Your task to perform on an android device: Set an alarm for 9am Image 0: 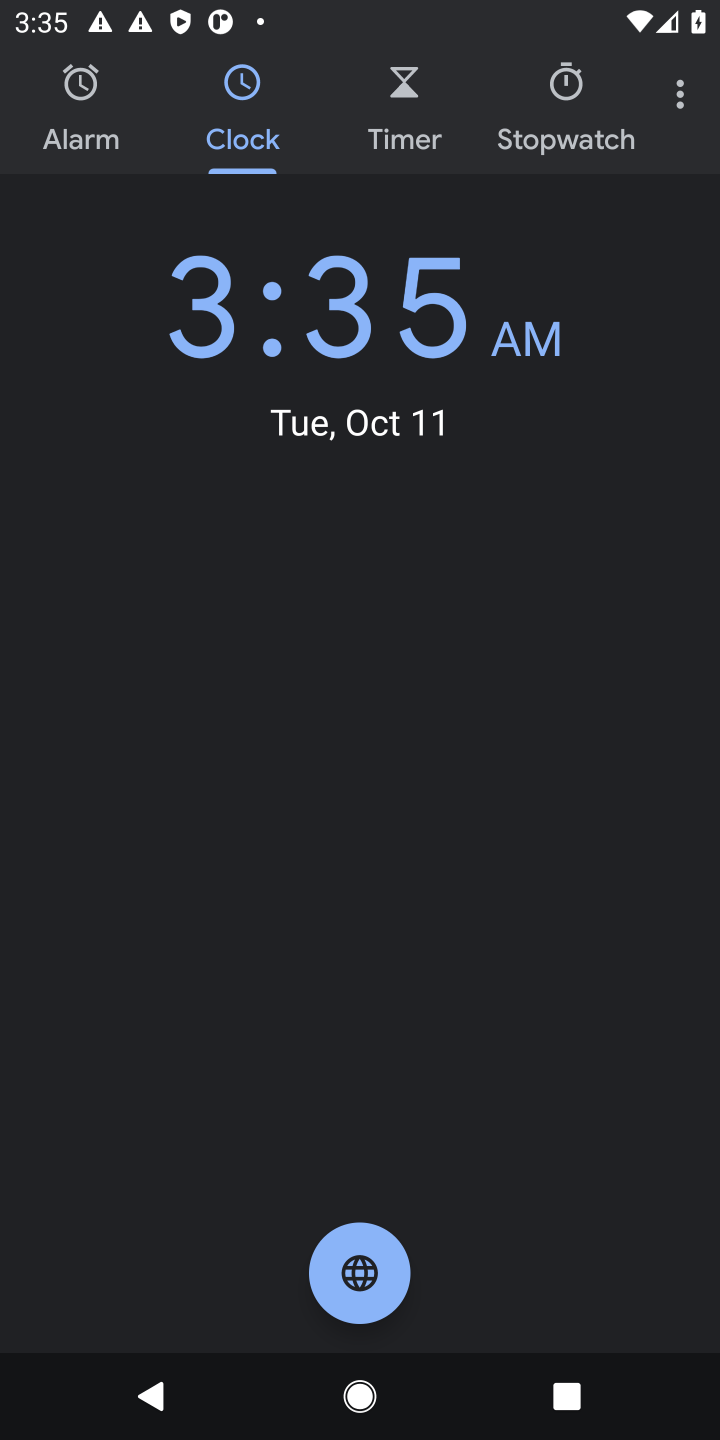
Step 0: press home button
Your task to perform on an android device: Set an alarm for 9am Image 1: 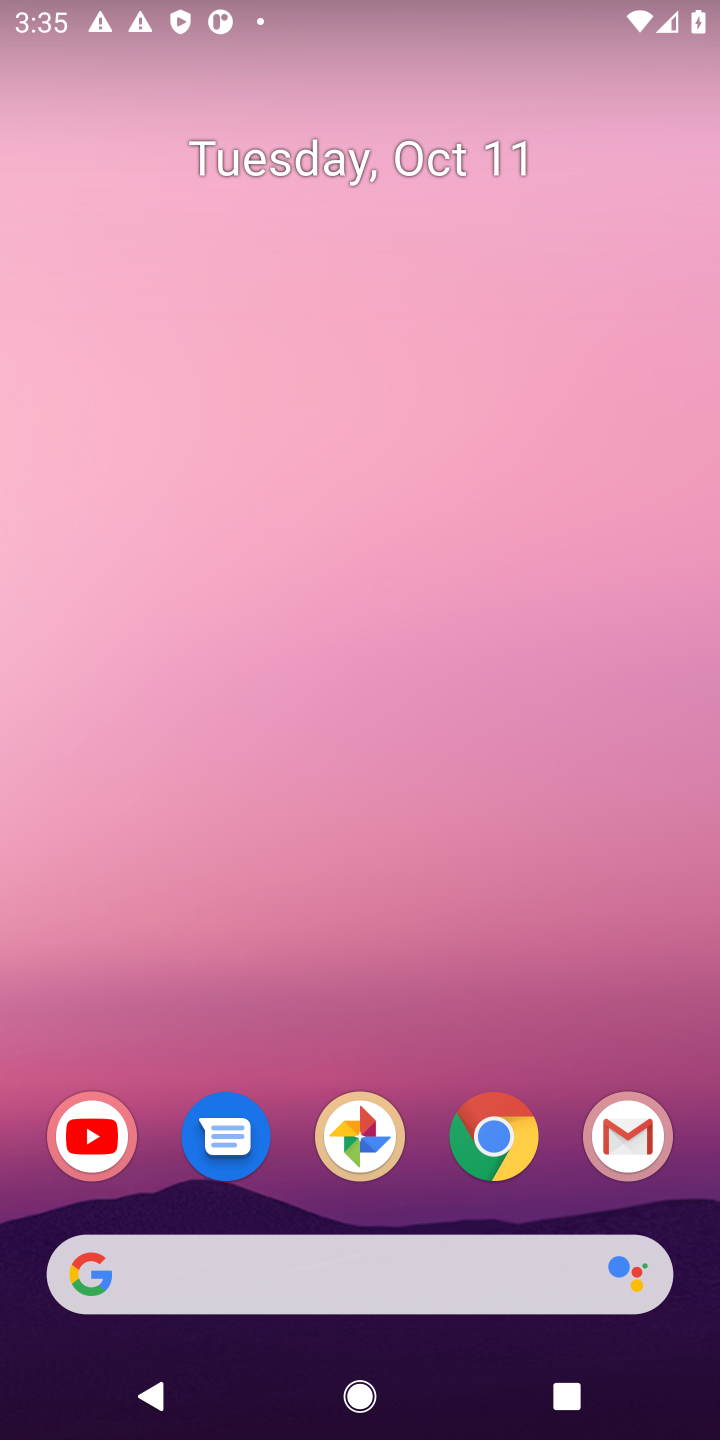
Step 1: drag from (361, 1194) to (383, 113)
Your task to perform on an android device: Set an alarm for 9am Image 2: 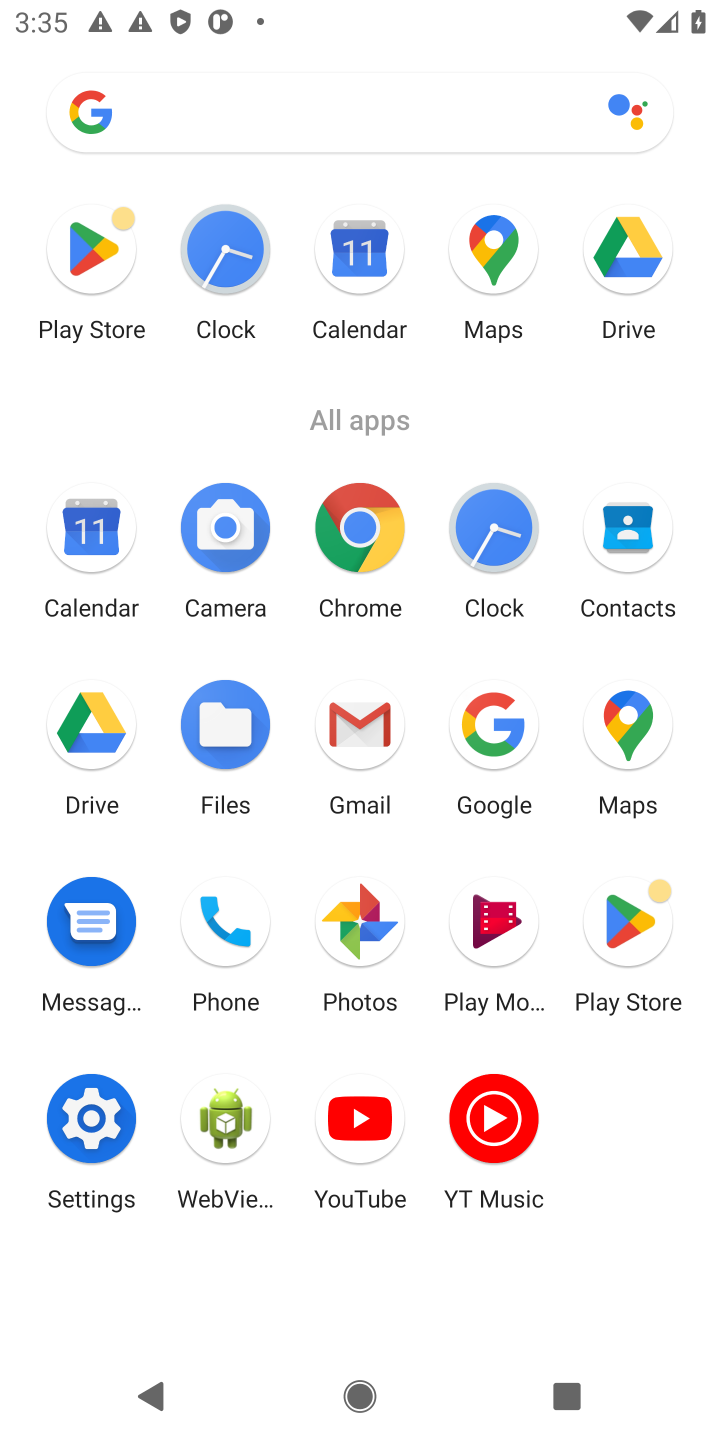
Step 2: click (494, 534)
Your task to perform on an android device: Set an alarm for 9am Image 3: 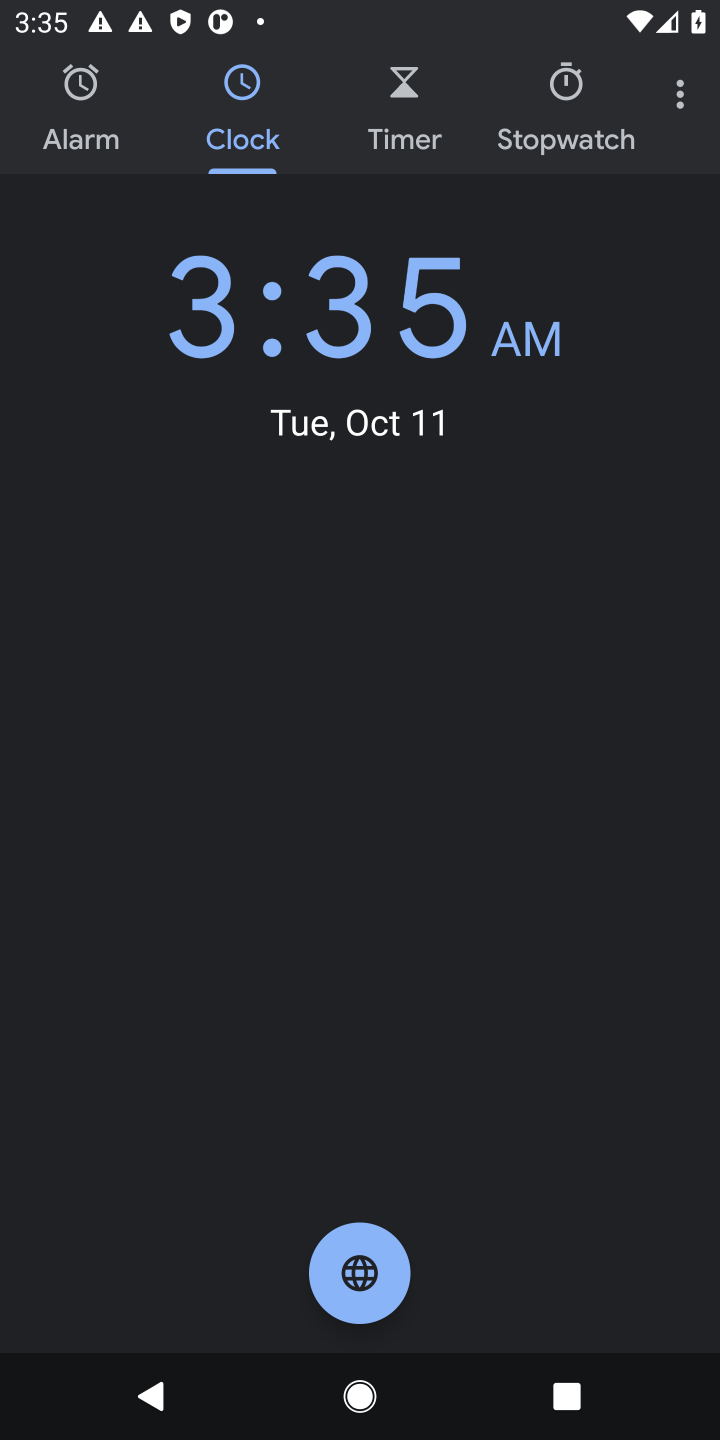
Step 3: click (81, 89)
Your task to perform on an android device: Set an alarm for 9am Image 4: 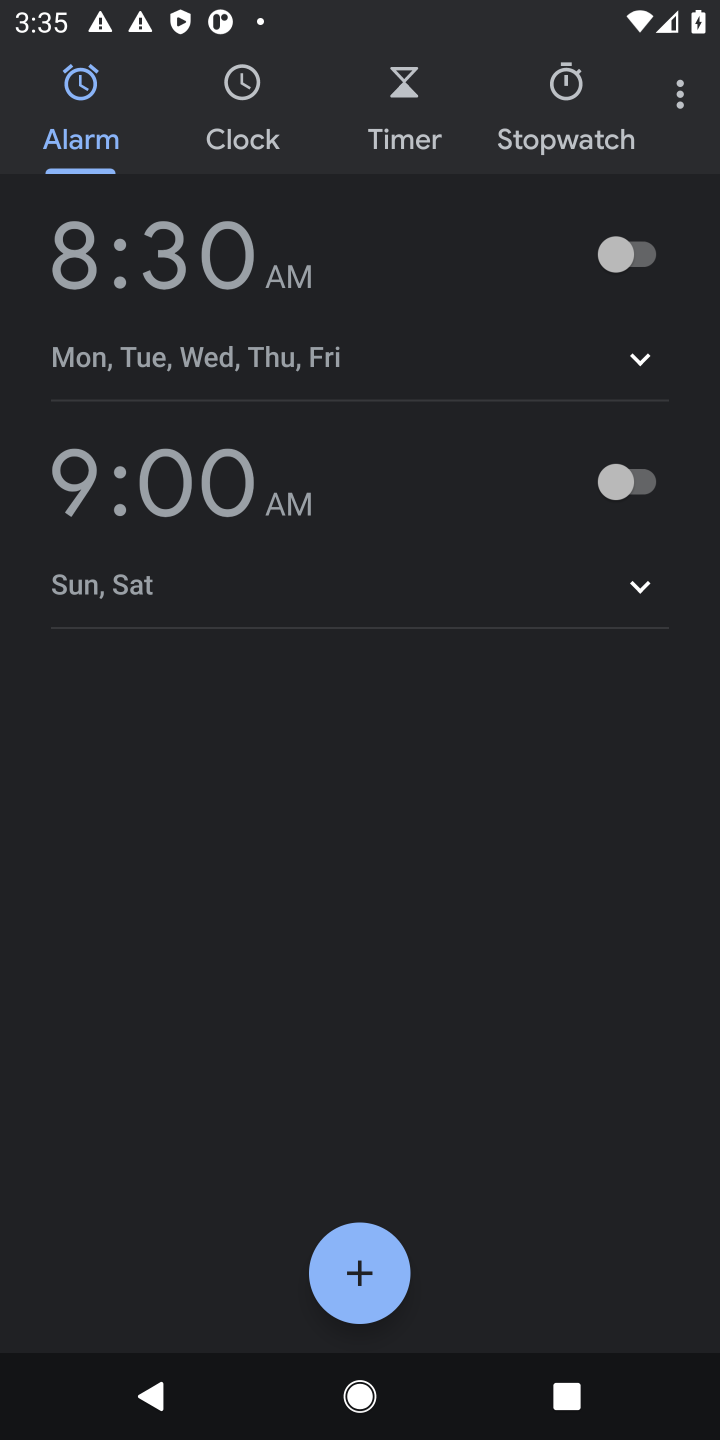
Step 4: click (361, 1267)
Your task to perform on an android device: Set an alarm for 9am Image 5: 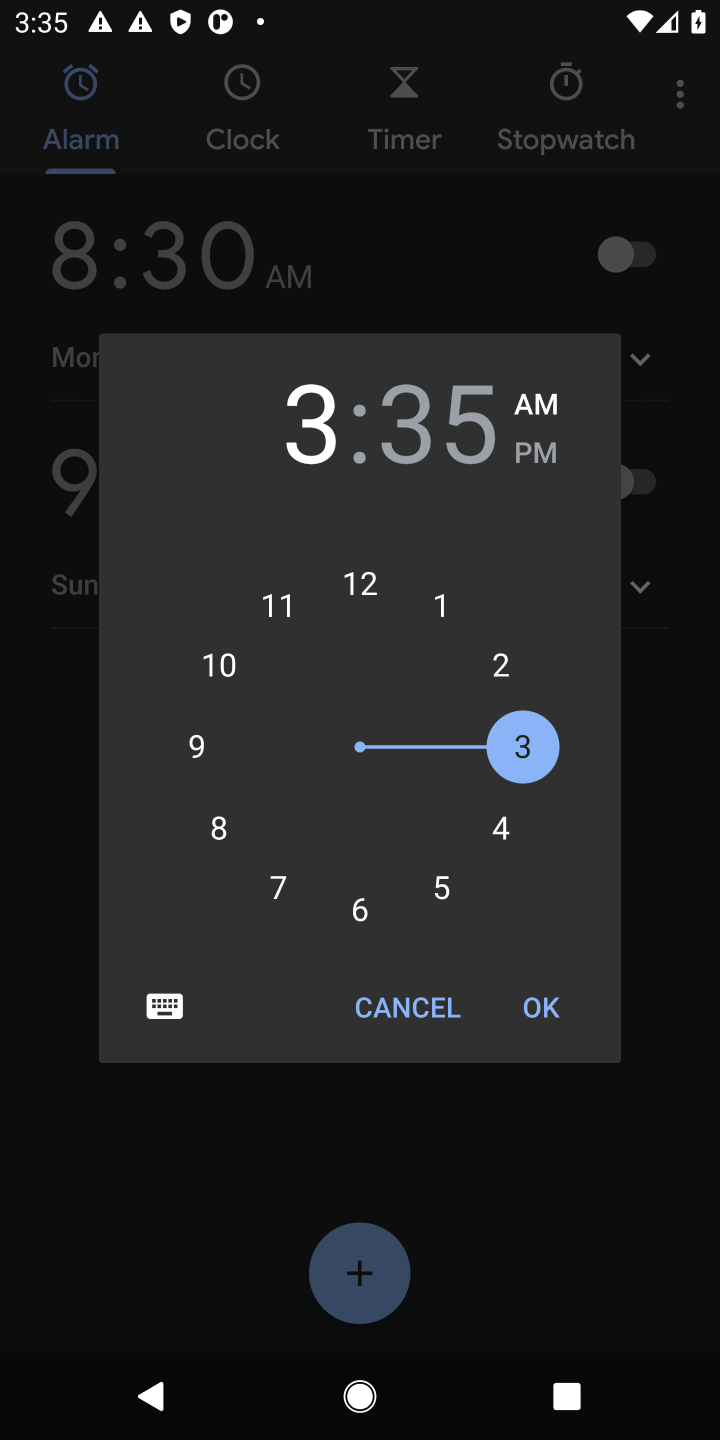
Step 5: click (197, 745)
Your task to perform on an android device: Set an alarm for 9am Image 6: 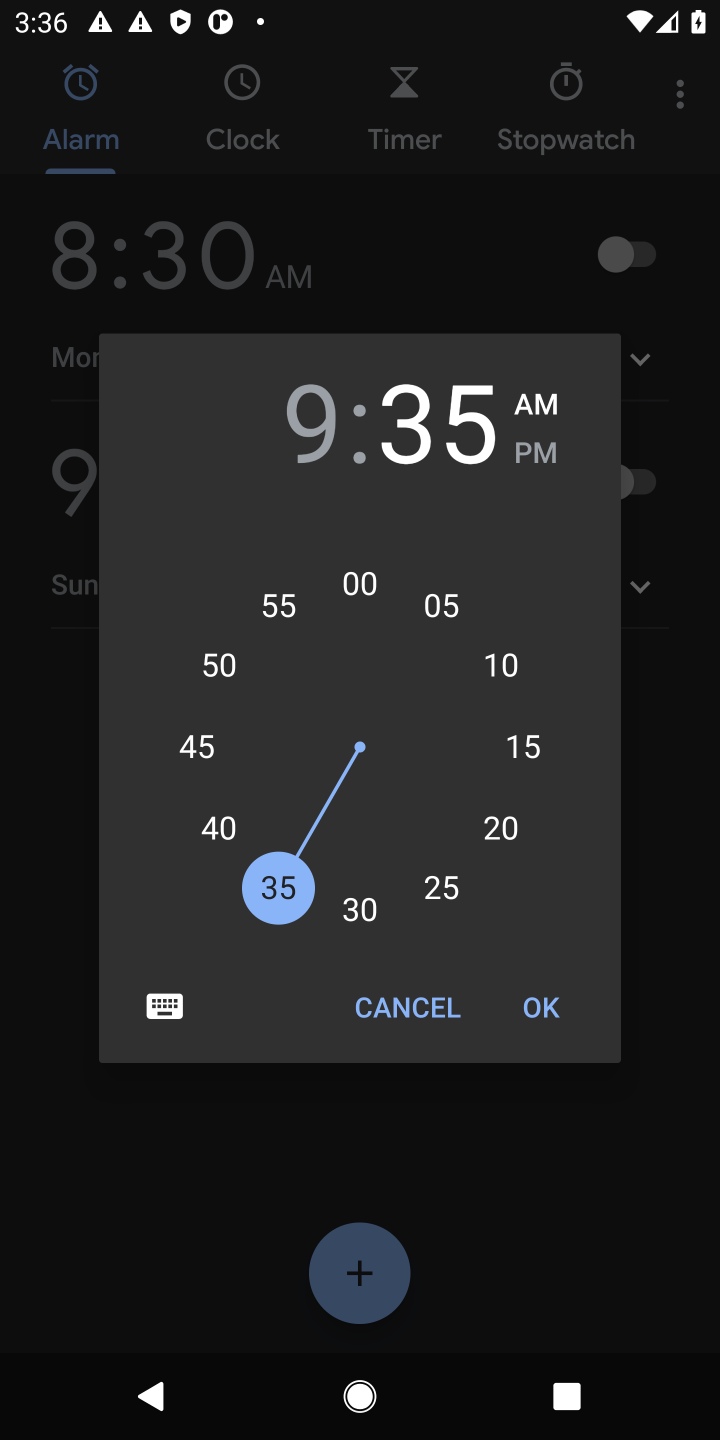
Step 6: click (370, 582)
Your task to perform on an android device: Set an alarm for 9am Image 7: 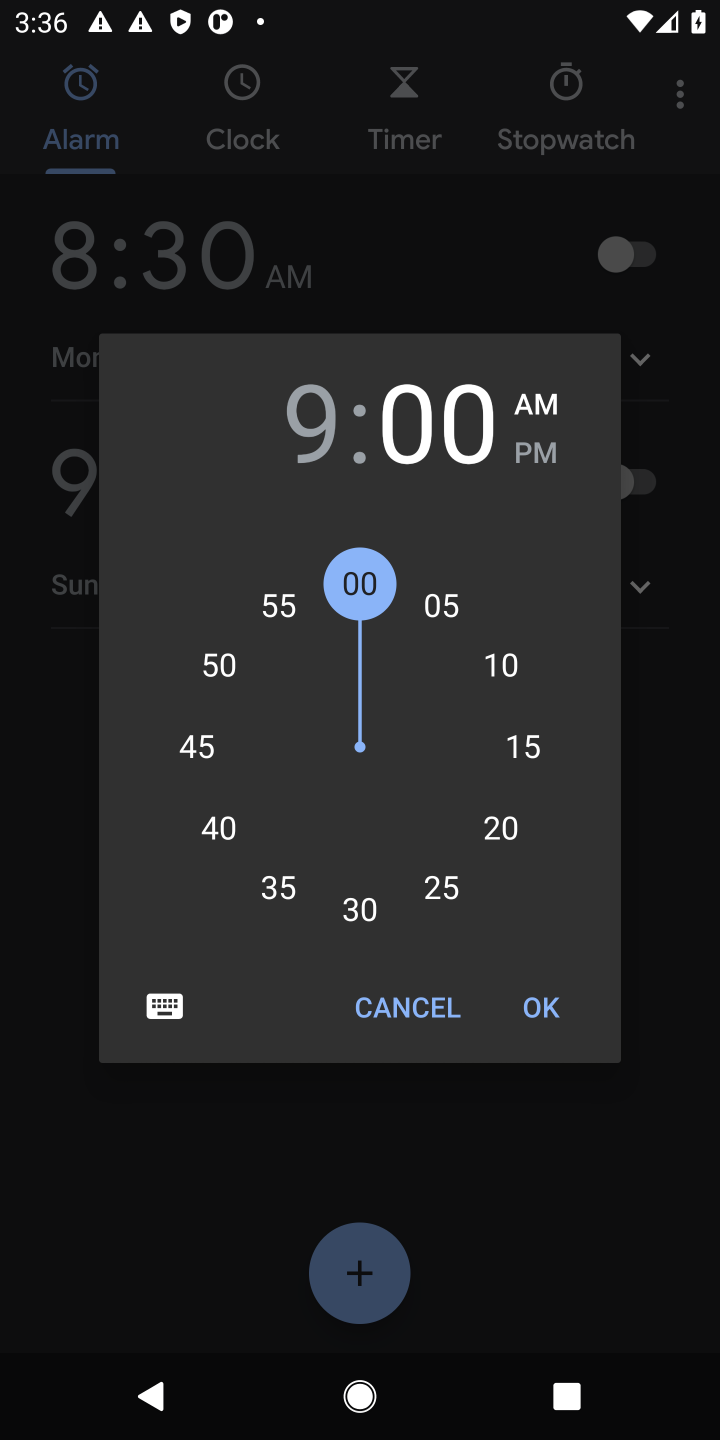
Step 7: click (538, 1003)
Your task to perform on an android device: Set an alarm for 9am Image 8: 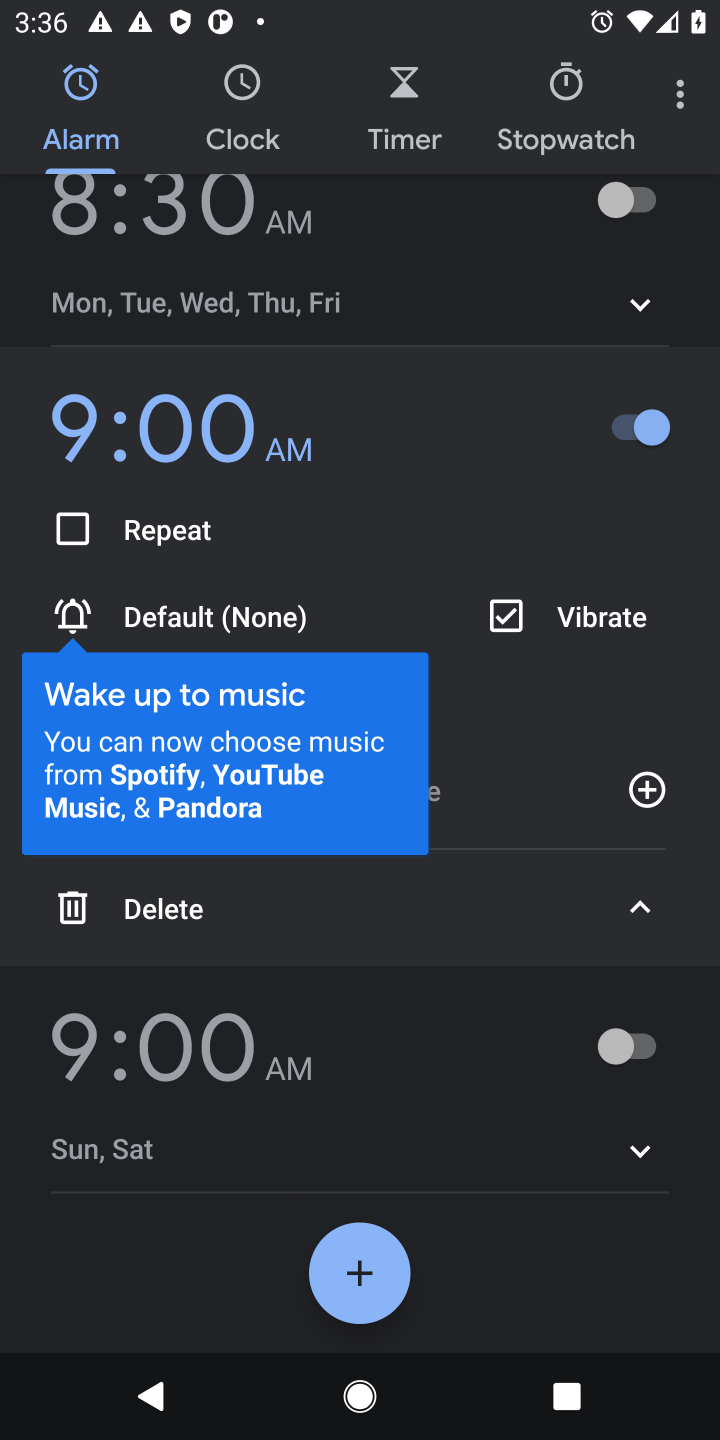
Step 8: click (648, 909)
Your task to perform on an android device: Set an alarm for 9am Image 9: 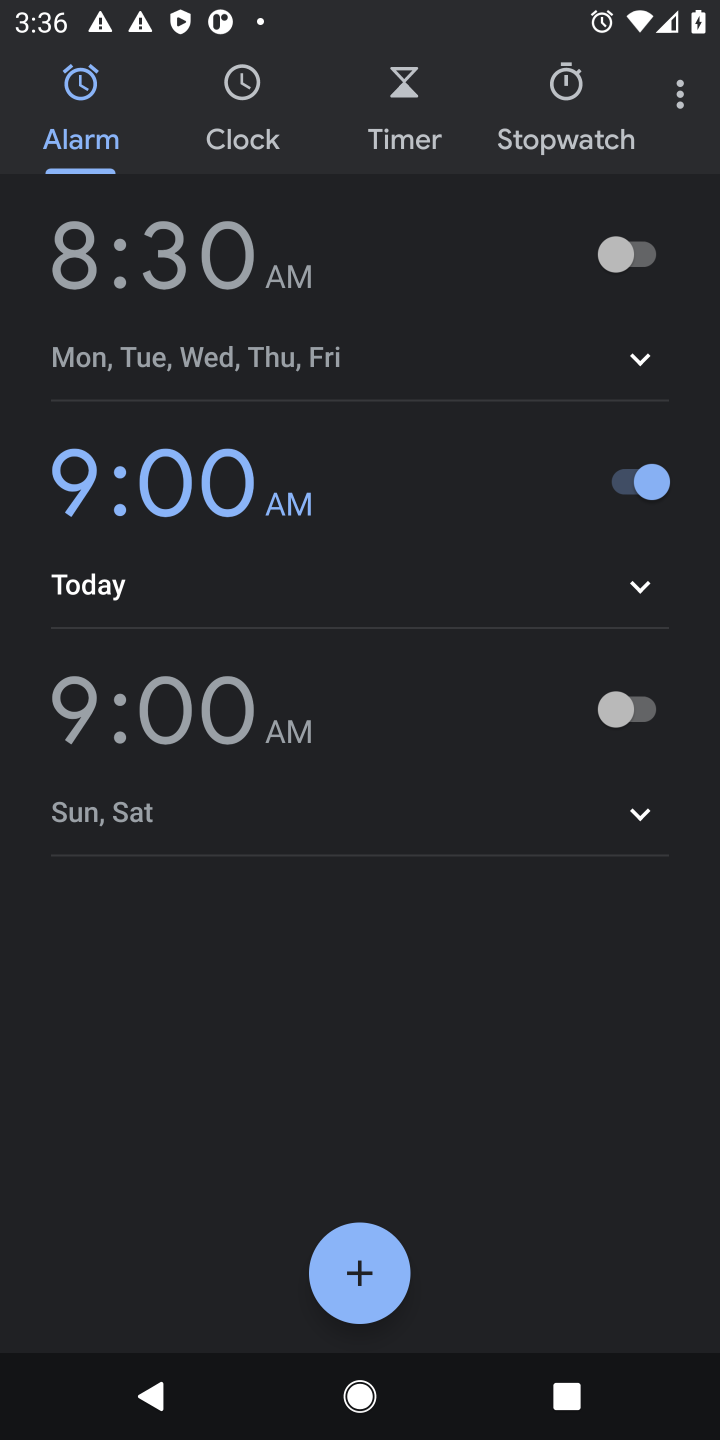
Step 9: task complete